Your task to perform on an android device: turn notification dots on Image 0: 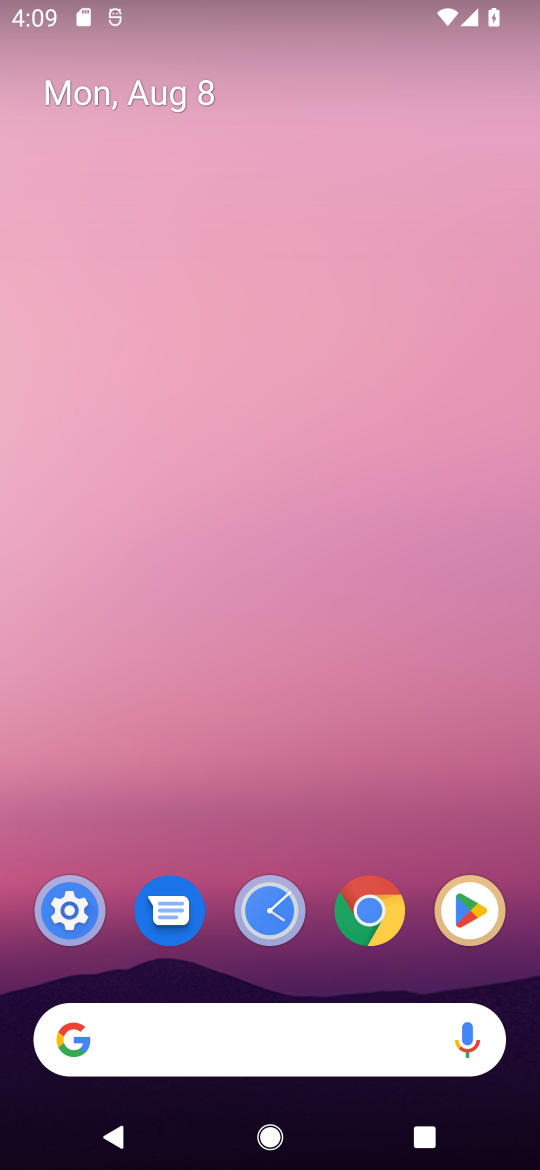
Step 0: drag from (330, 831) to (372, 17)
Your task to perform on an android device: turn notification dots on Image 1: 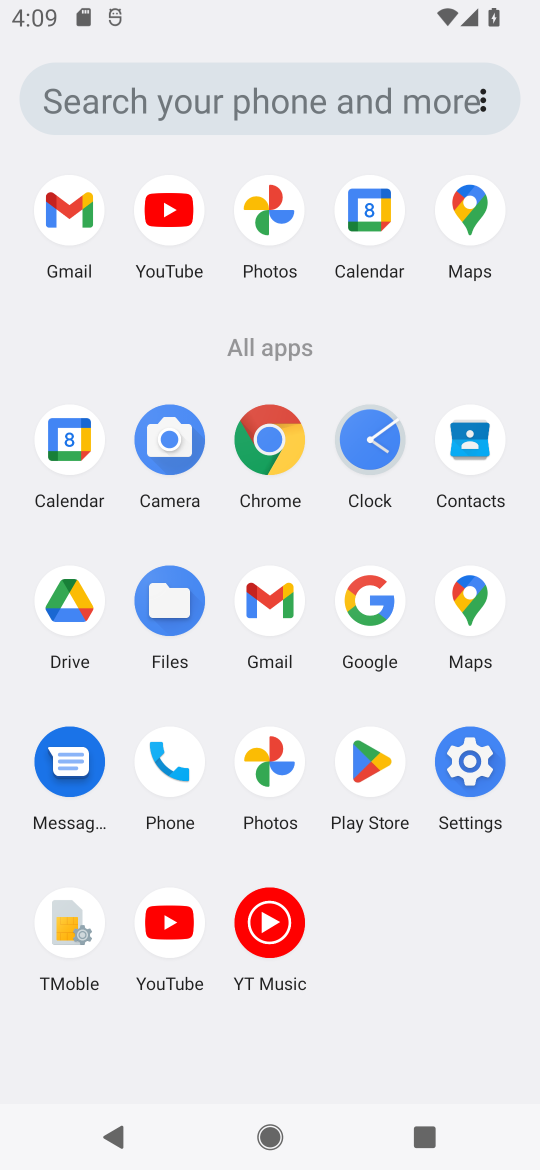
Step 1: click (484, 768)
Your task to perform on an android device: turn notification dots on Image 2: 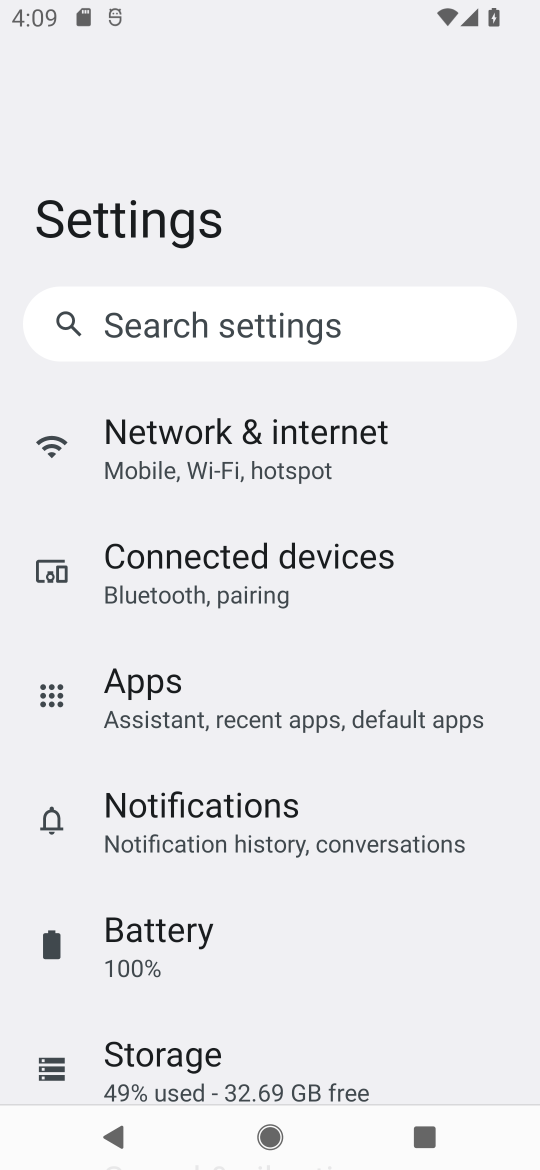
Step 2: click (197, 808)
Your task to perform on an android device: turn notification dots on Image 3: 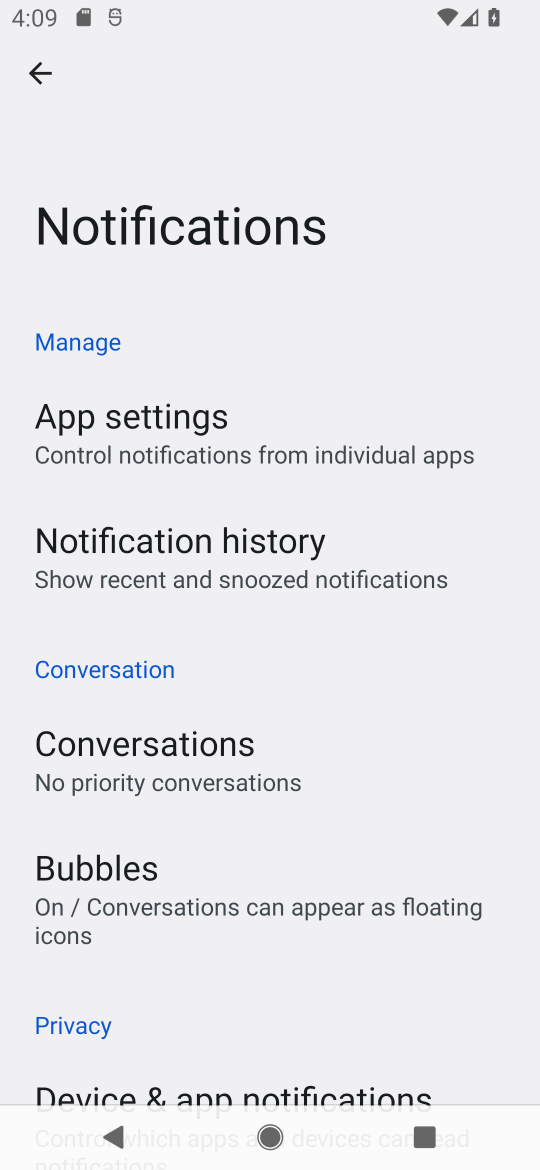
Step 3: drag from (374, 909) to (396, 368)
Your task to perform on an android device: turn notification dots on Image 4: 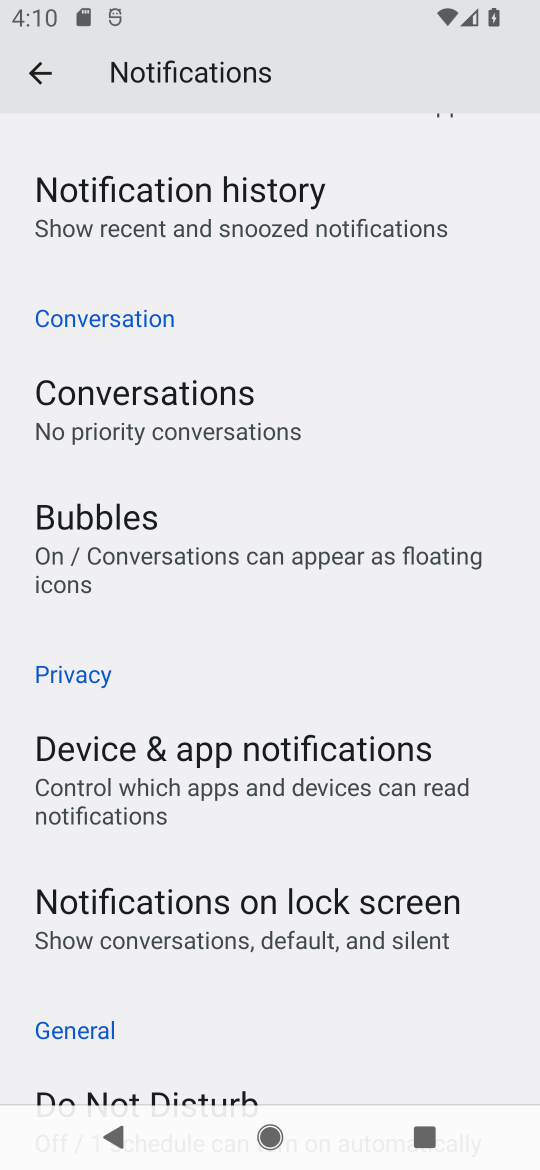
Step 4: click (245, 791)
Your task to perform on an android device: turn notification dots on Image 5: 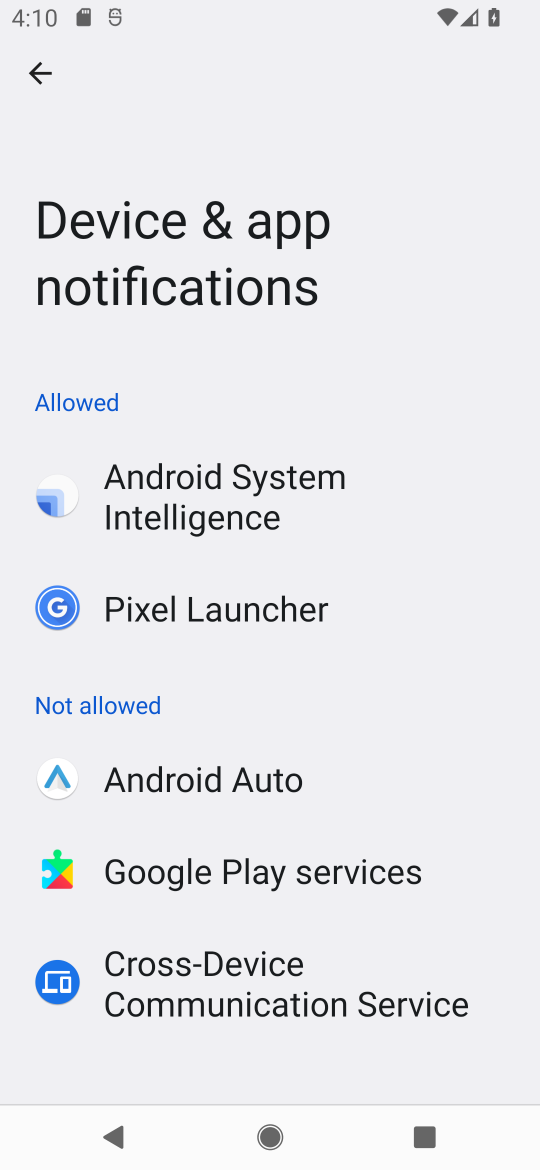
Step 5: drag from (392, 866) to (435, 195)
Your task to perform on an android device: turn notification dots on Image 6: 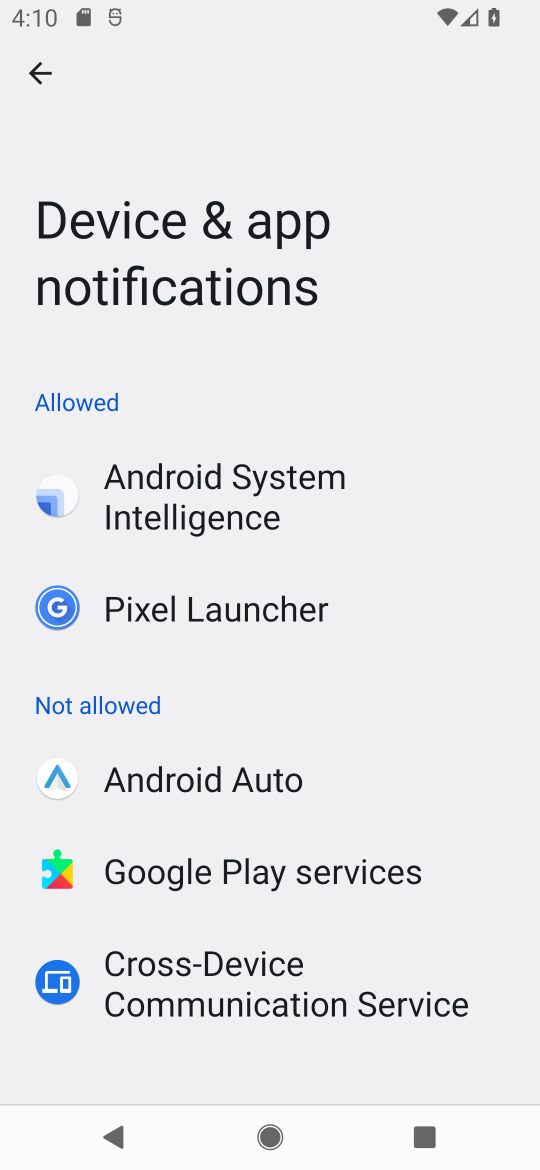
Step 6: click (33, 79)
Your task to perform on an android device: turn notification dots on Image 7: 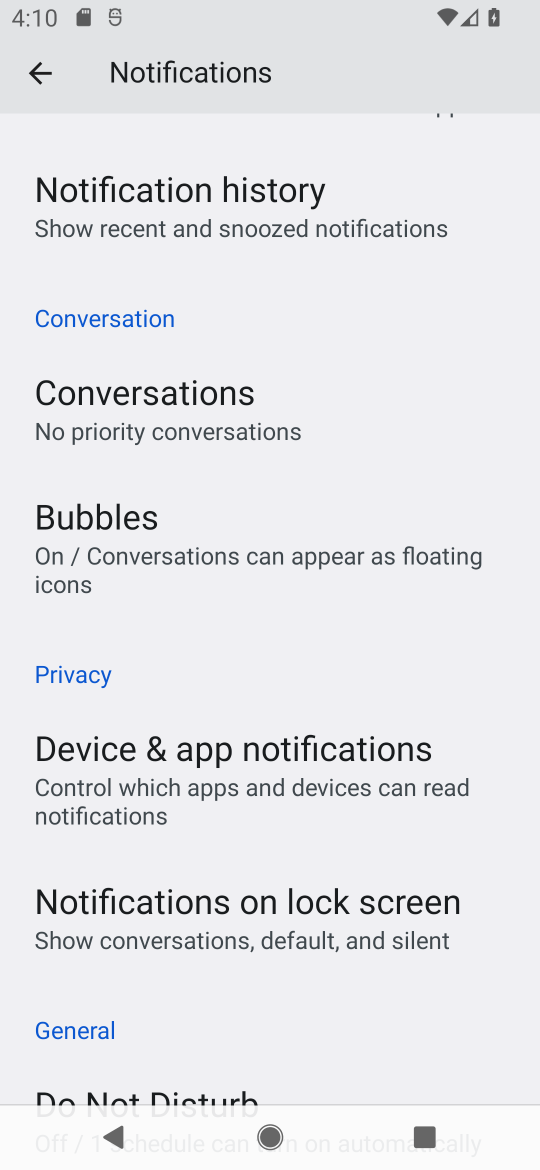
Step 7: task complete